Your task to perform on an android device: toggle show notifications on the lock screen Image 0: 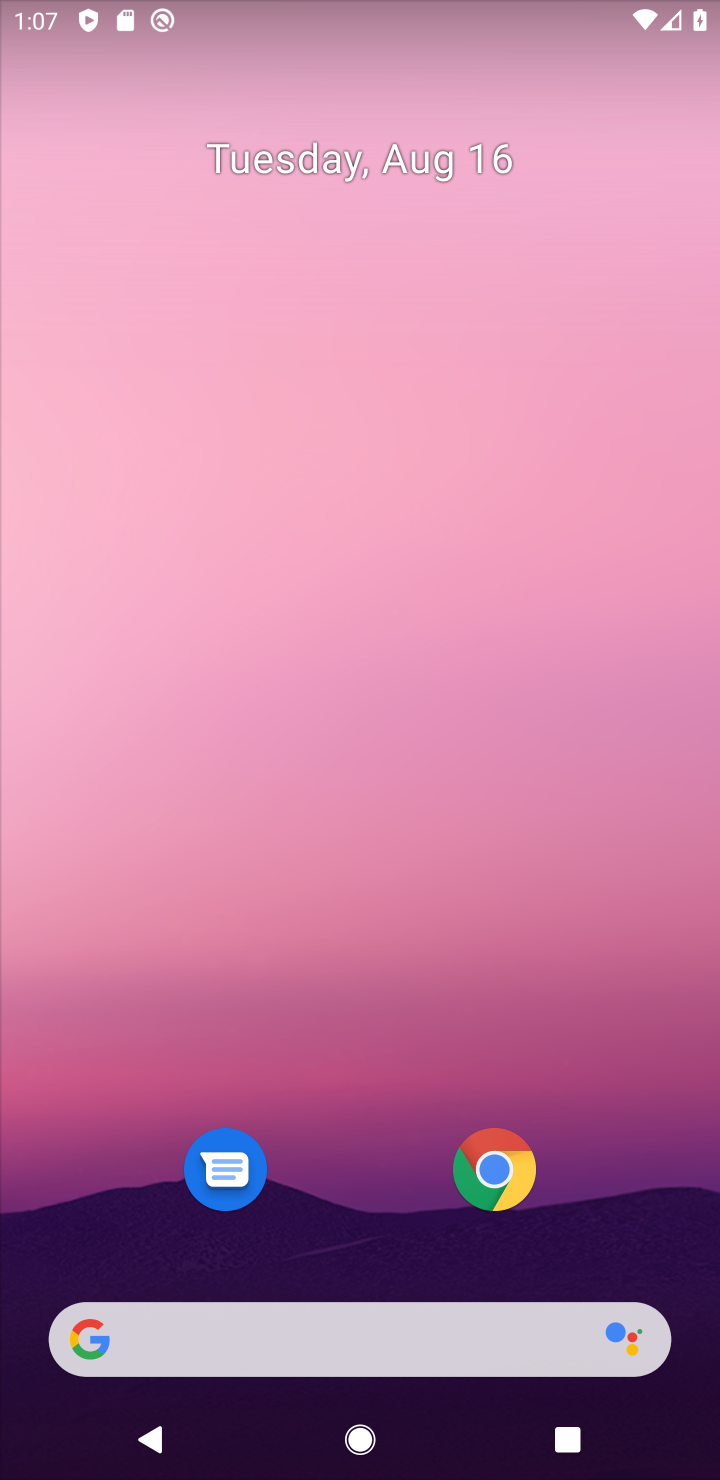
Step 0: drag from (66, 1402) to (364, 592)
Your task to perform on an android device: toggle show notifications on the lock screen Image 1: 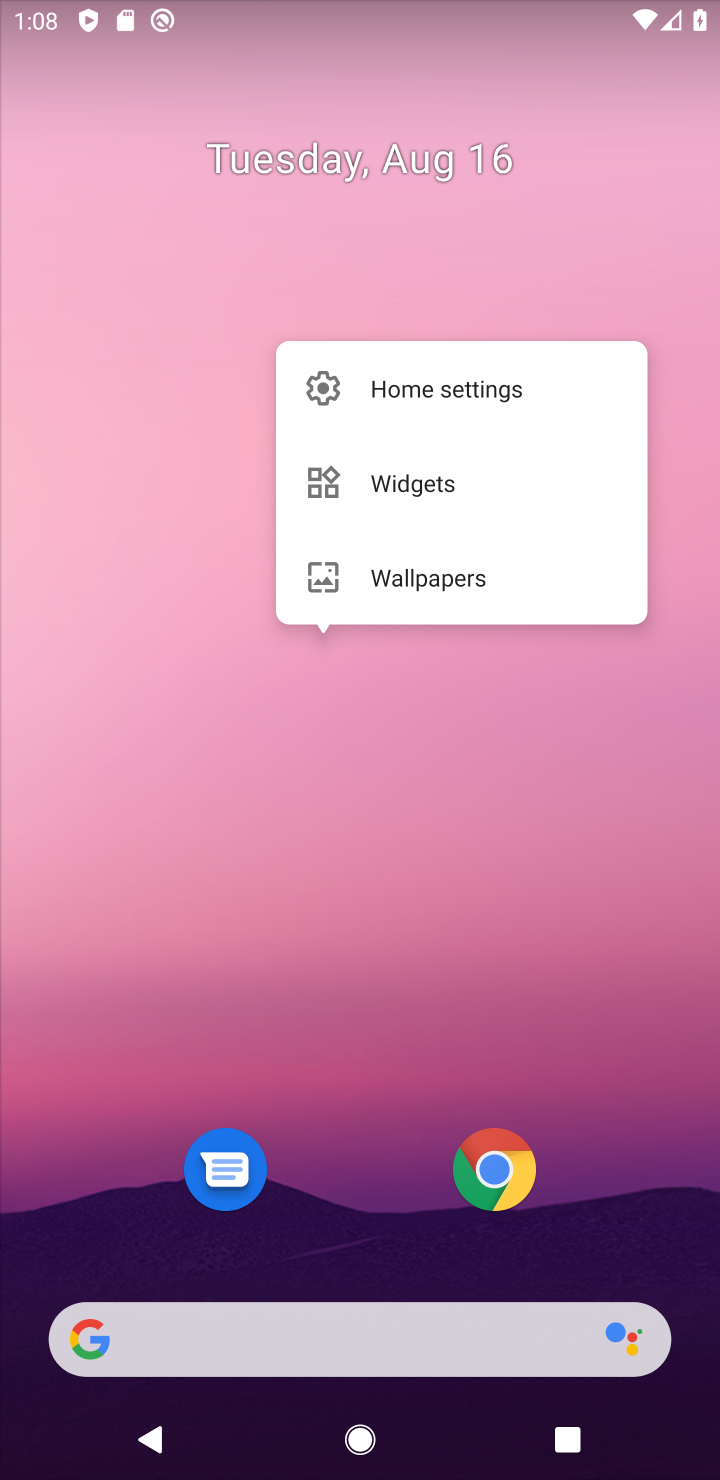
Step 1: task complete